Your task to perform on an android device: Search for Italian restaurants on Maps Image 0: 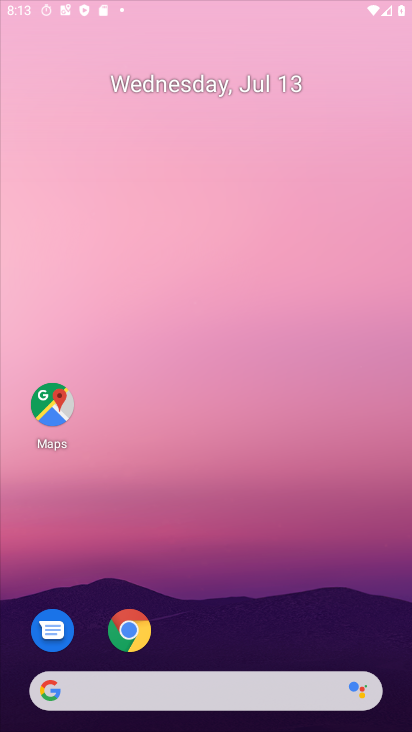
Step 0: drag from (332, 536) to (333, 199)
Your task to perform on an android device: Search for Italian restaurants on Maps Image 1: 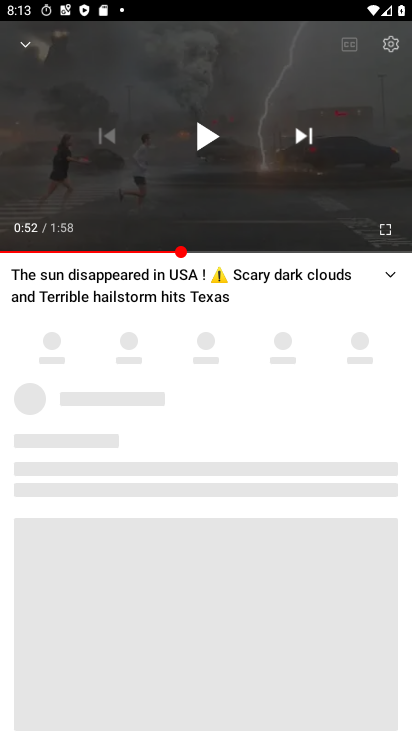
Step 1: press home button
Your task to perform on an android device: Search for Italian restaurants on Maps Image 2: 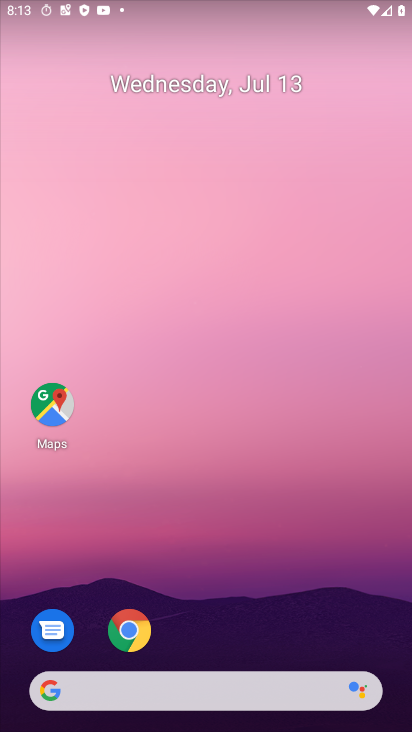
Step 2: drag from (353, 637) to (367, 119)
Your task to perform on an android device: Search for Italian restaurants on Maps Image 3: 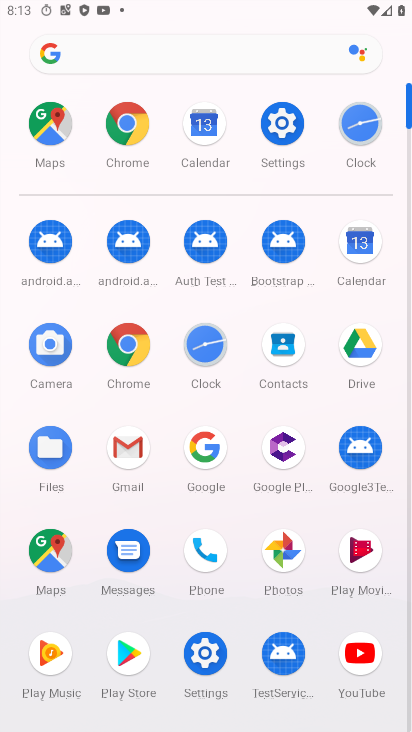
Step 3: click (49, 550)
Your task to perform on an android device: Search for Italian restaurants on Maps Image 4: 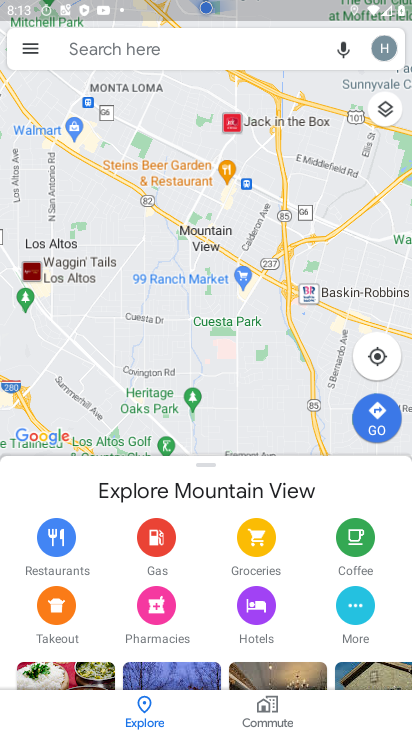
Step 4: click (158, 51)
Your task to perform on an android device: Search for Italian restaurants on Maps Image 5: 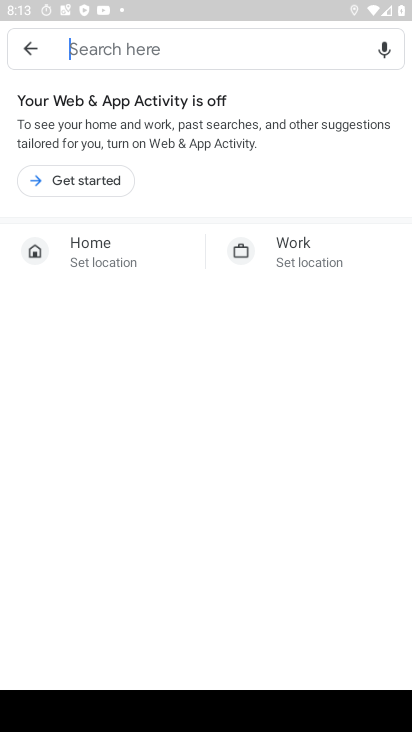
Step 5: type "italian restaurants"
Your task to perform on an android device: Search for Italian restaurants on Maps Image 6: 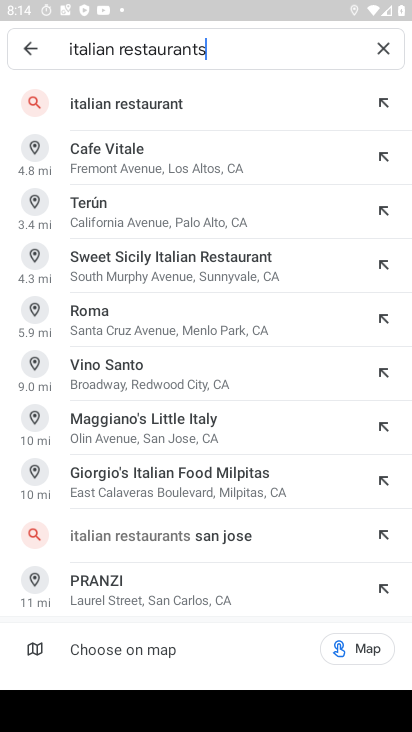
Step 6: click (243, 101)
Your task to perform on an android device: Search for Italian restaurants on Maps Image 7: 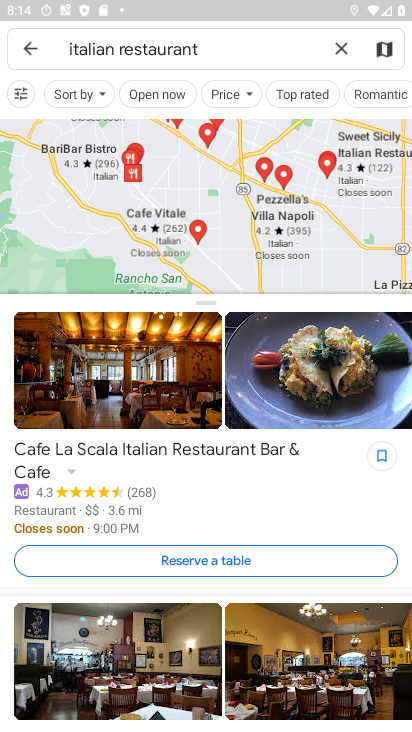
Step 7: task complete